Your task to perform on an android device: toggle airplane mode Image 0: 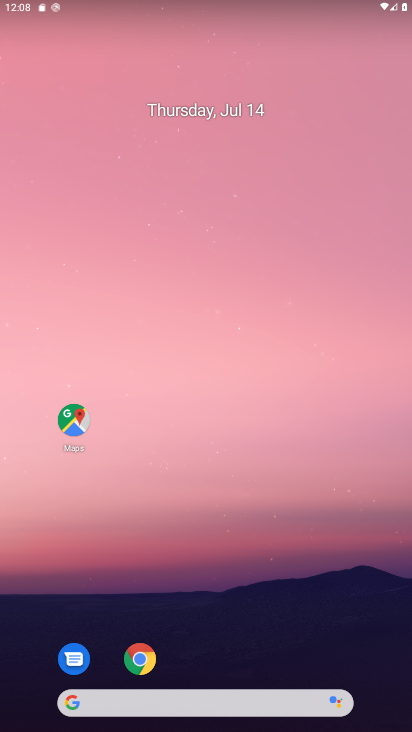
Step 0: drag from (305, 625) to (245, 135)
Your task to perform on an android device: toggle airplane mode Image 1: 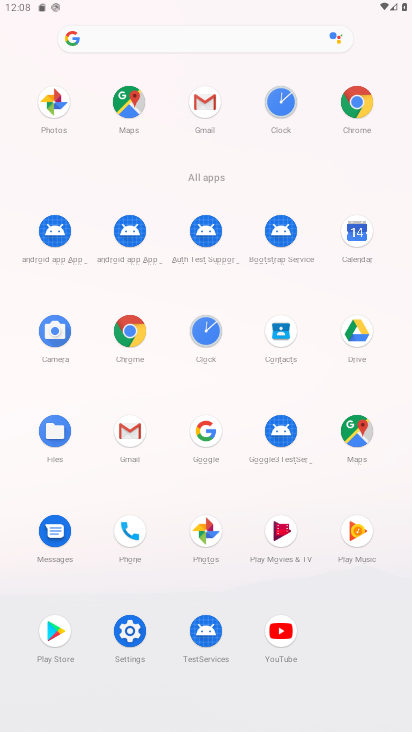
Step 1: click (118, 629)
Your task to perform on an android device: toggle airplane mode Image 2: 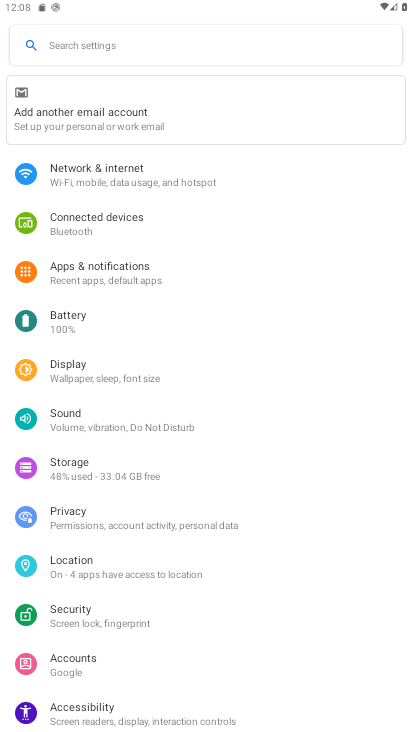
Step 2: click (117, 180)
Your task to perform on an android device: toggle airplane mode Image 3: 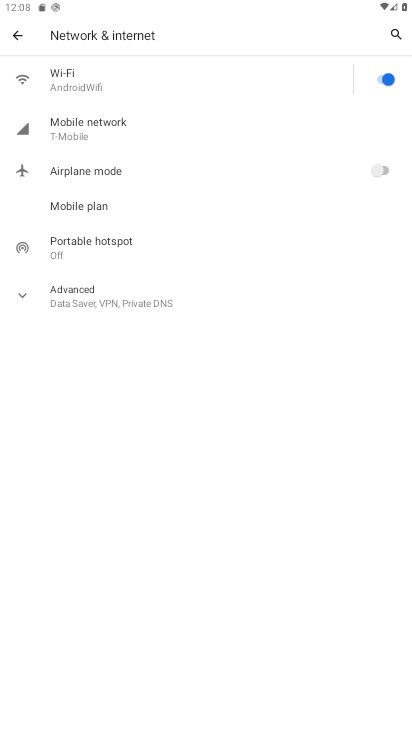
Step 3: click (384, 176)
Your task to perform on an android device: toggle airplane mode Image 4: 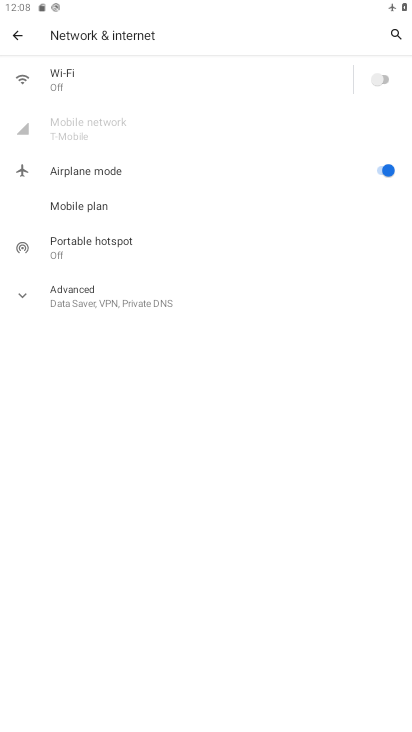
Step 4: task complete